Your task to perform on an android device: turn off picture-in-picture Image 0: 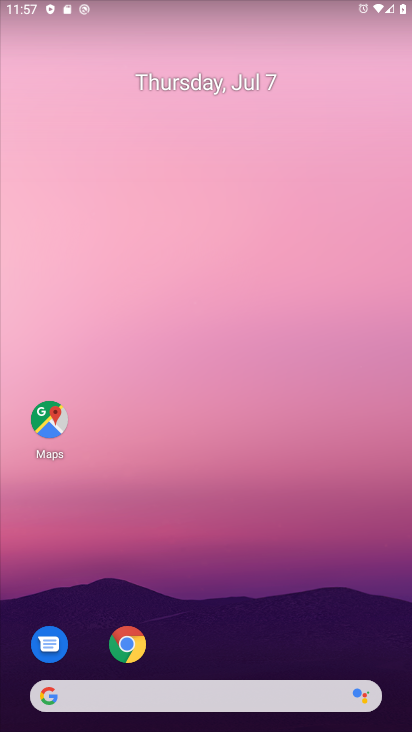
Step 0: drag from (216, 562) to (220, 708)
Your task to perform on an android device: turn off picture-in-picture Image 1: 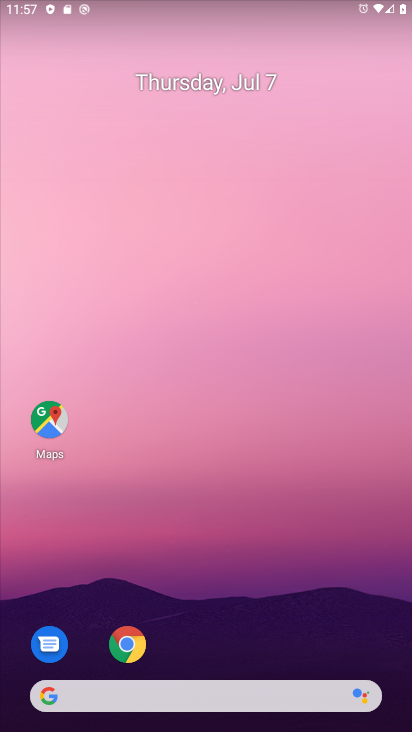
Step 1: click (131, 647)
Your task to perform on an android device: turn off picture-in-picture Image 2: 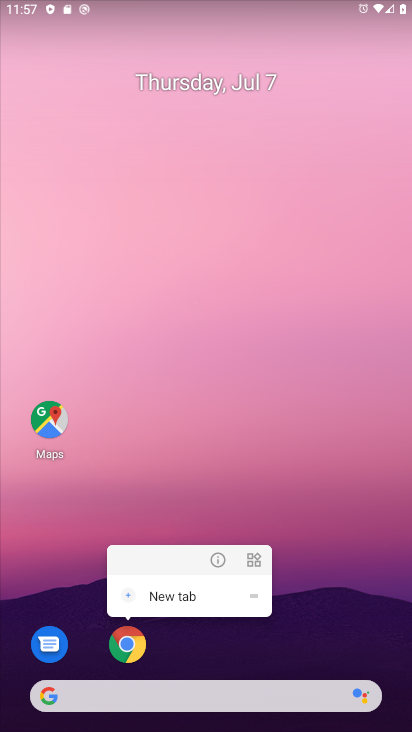
Step 2: click (219, 562)
Your task to perform on an android device: turn off picture-in-picture Image 3: 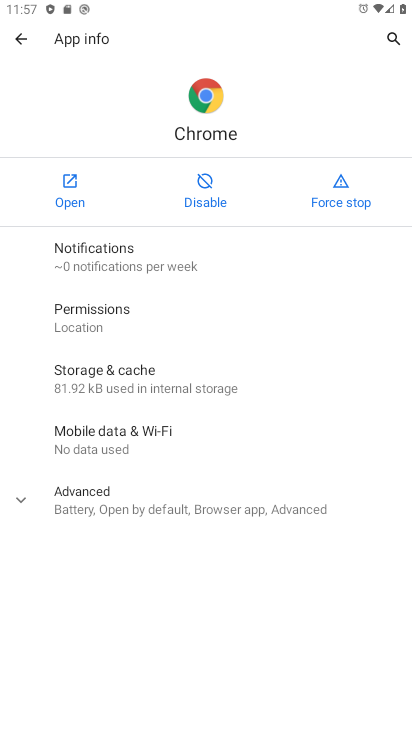
Step 3: click (126, 505)
Your task to perform on an android device: turn off picture-in-picture Image 4: 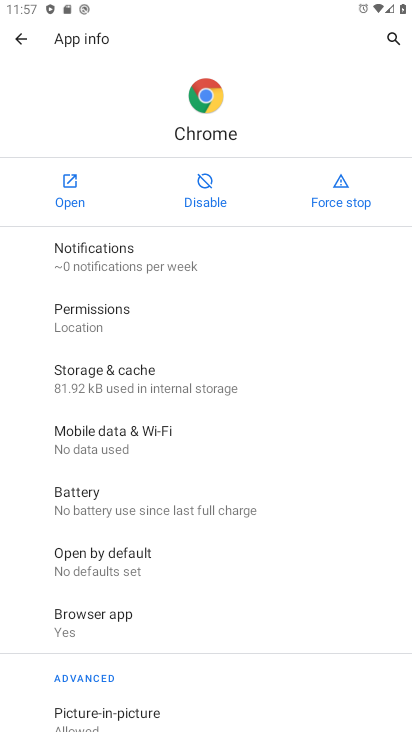
Step 4: drag from (125, 615) to (130, 467)
Your task to perform on an android device: turn off picture-in-picture Image 5: 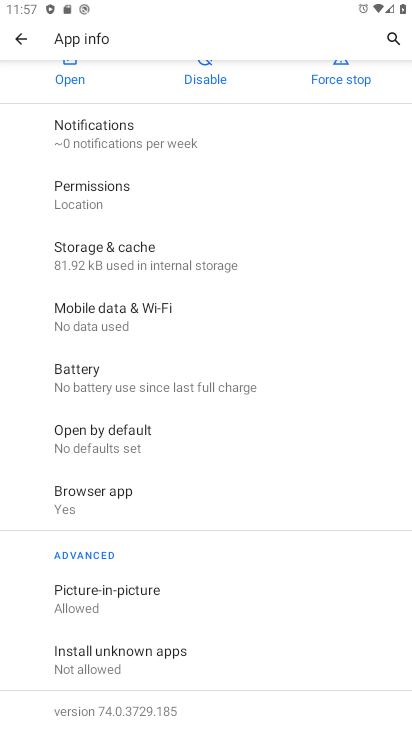
Step 5: click (114, 605)
Your task to perform on an android device: turn off picture-in-picture Image 6: 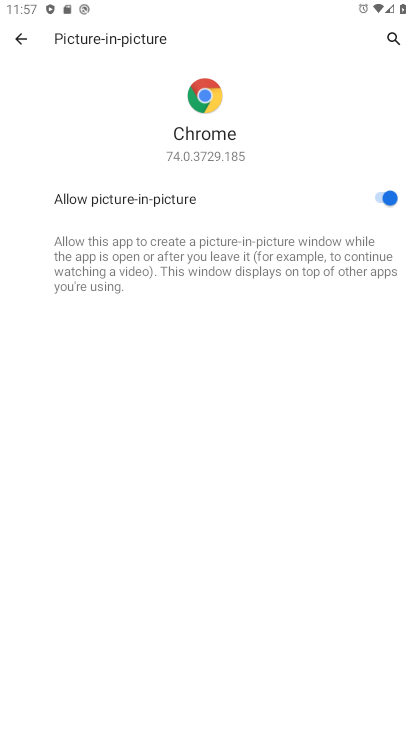
Step 6: click (364, 190)
Your task to perform on an android device: turn off picture-in-picture Image 7: 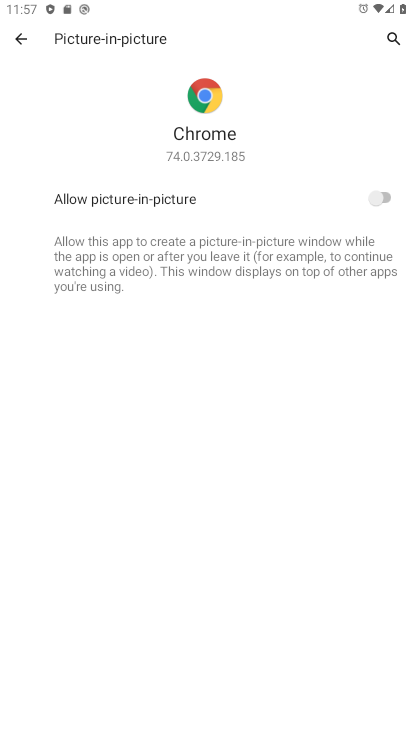
Step 7: task complete